Your task to perform on an android device: toggle improve location accuracy Image 0: 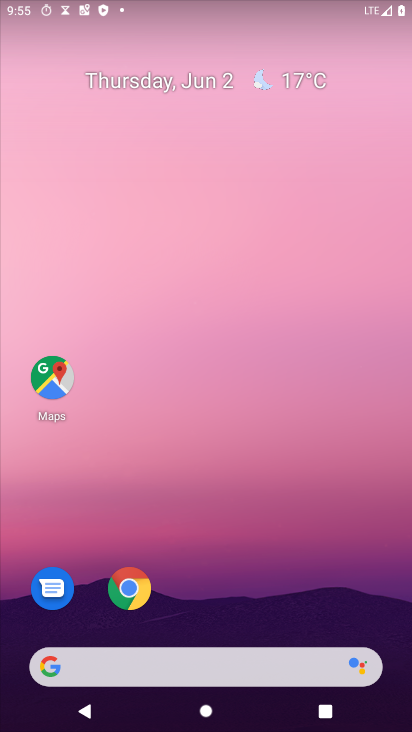
Step 0: drag from (252, 578) to (300, 74)
Your task to perform on an android device: toggle improve location accuracy Image 1: 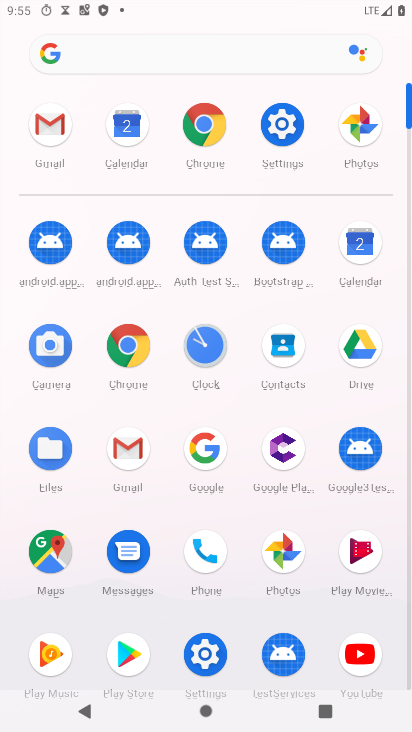
Step 1: click (268, 120)
Your task to perform on an android device: toggle improve location accuracy Image 2: 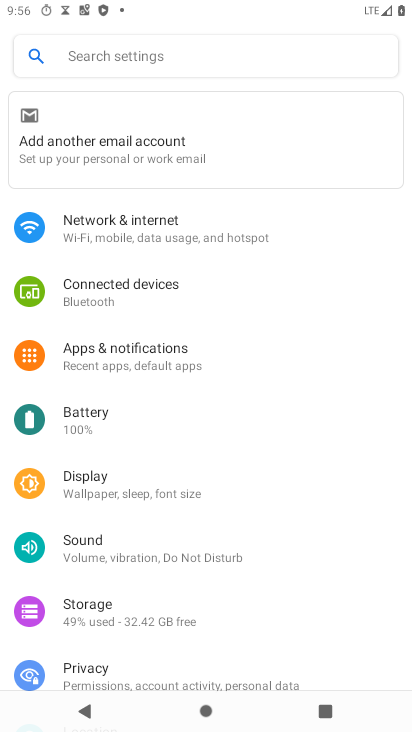
Step 2: drag from (175, 615) to (201, 131)
Your task to perform on an android device: toggle improve location accuracy Image 3: 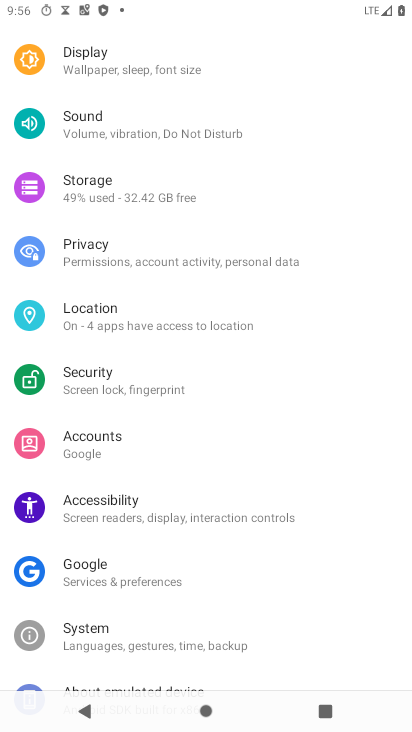
Step 3: click (102, 301)
Your task to perform on an android device: toggle improve location accuracy Image 4: 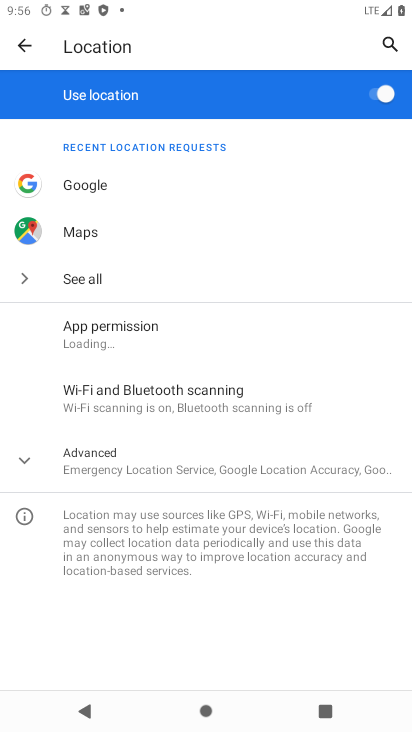
Step 4: click (145, 449)
Your task to perform on an android device: toggle improve location accuracy Image 5: 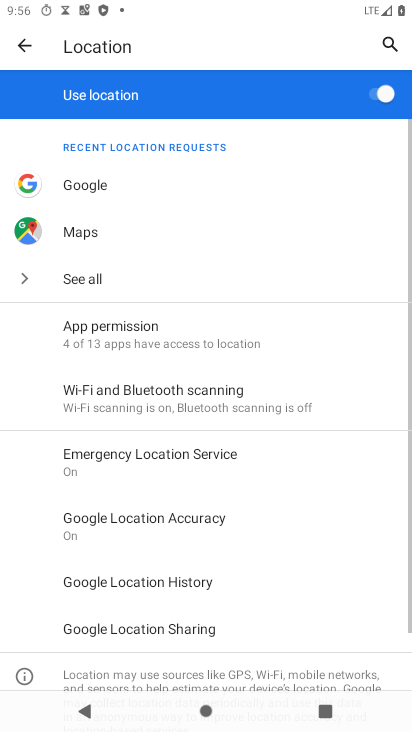
Step 5: click (160, 511)
Your task to perform on an android device: toggle improve location accuracy Image 6: 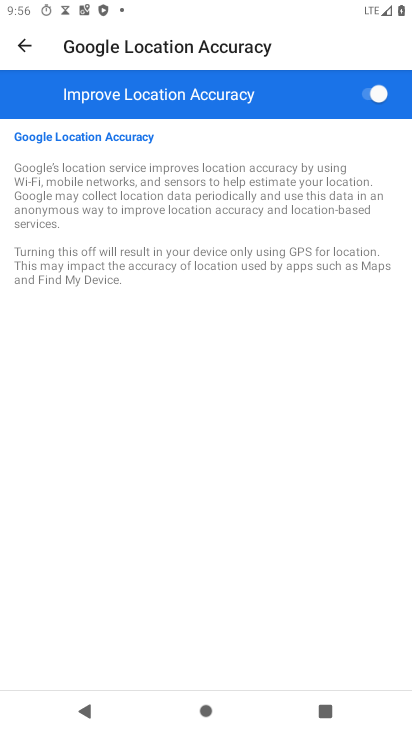
Step 6: click (370, 93)
Your task to perform on an android device: toggle improve location accuracy Image 7: 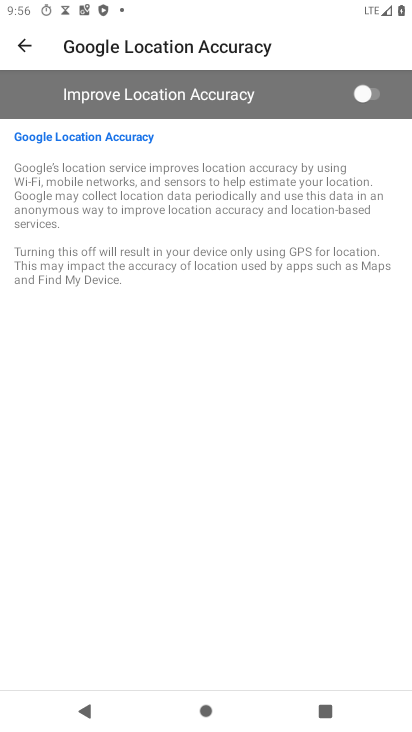
Step 7: task complete